Your task to perform on an android device: toggle notification dots Image 0: 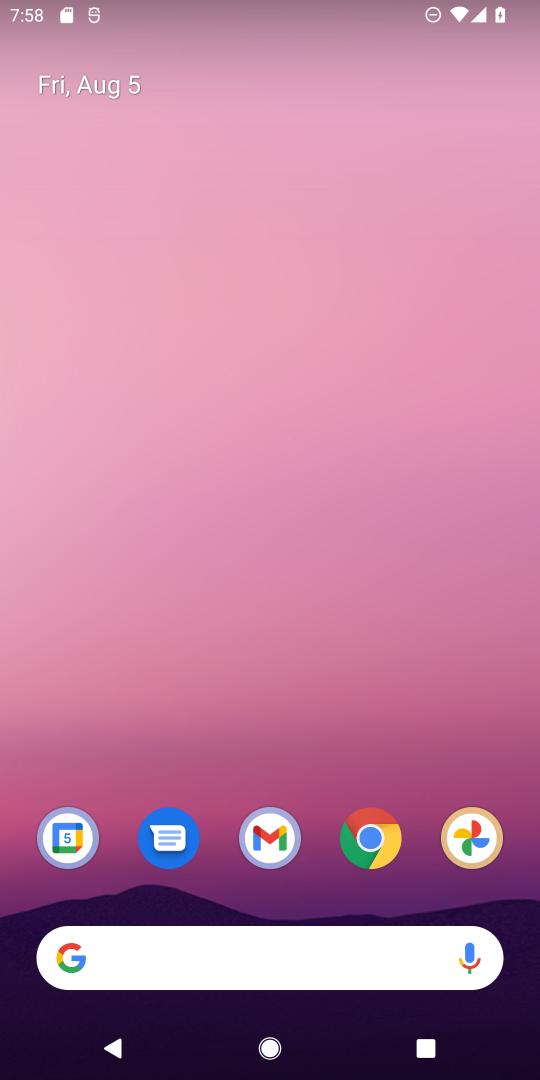
Step 0: drag from (292, 551) to (308, 272)
Your task to perform on an android device: toggle notification dots Image 1: 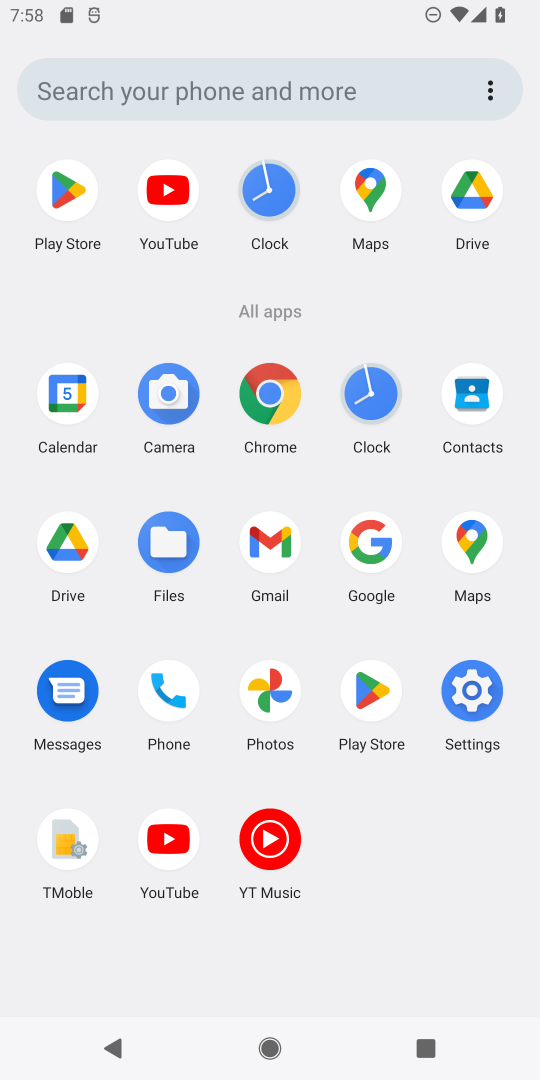
Step 1: click (481, 704)
Your task to perform on an android device: toggle notification dots Image 2: 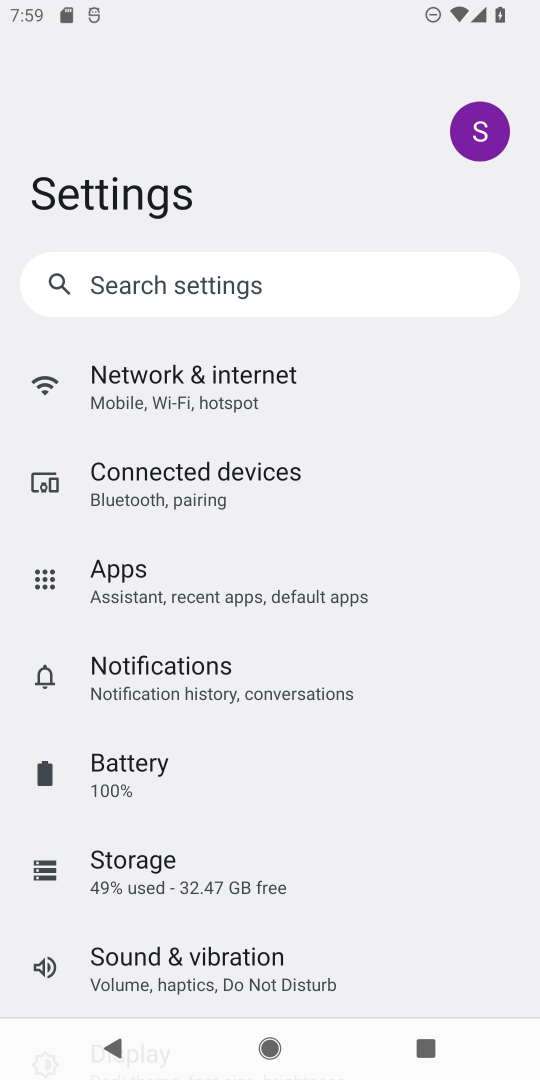
Step 2: click (129, 685)
Your task to perform on an android device: toggle notification dots Image 3: 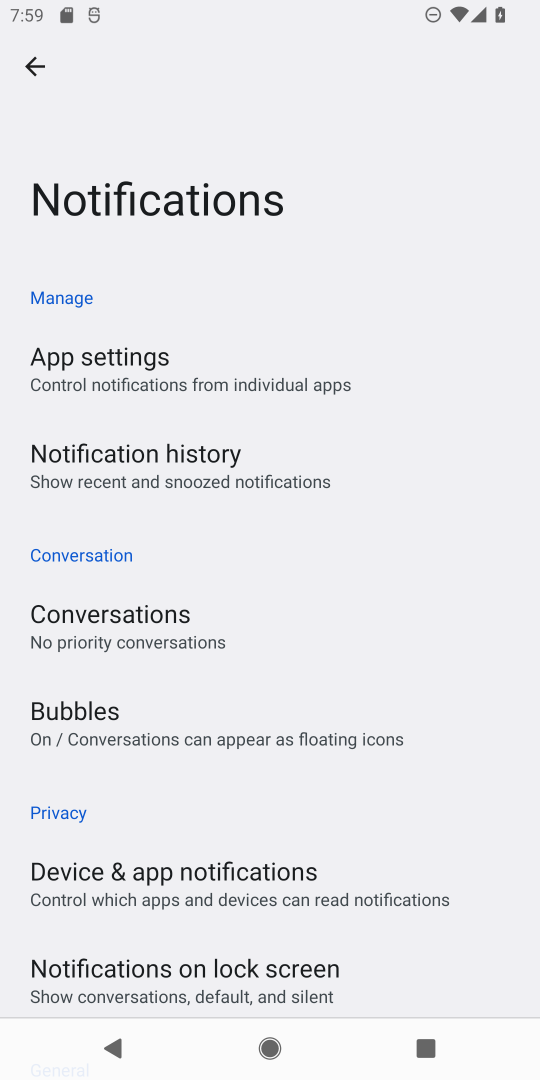
Step 3: click (116, 460)
Your task to perform on an android device: toggle notification dots Image 4: 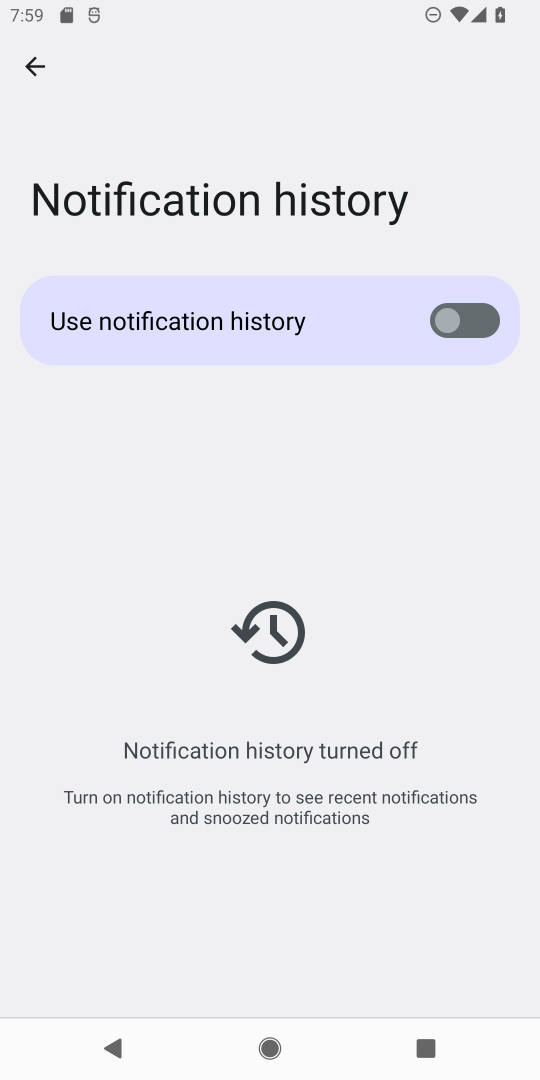
Step 4: click (40, 54)
Your task to perform on an android device: toggle notification dots Image 5: 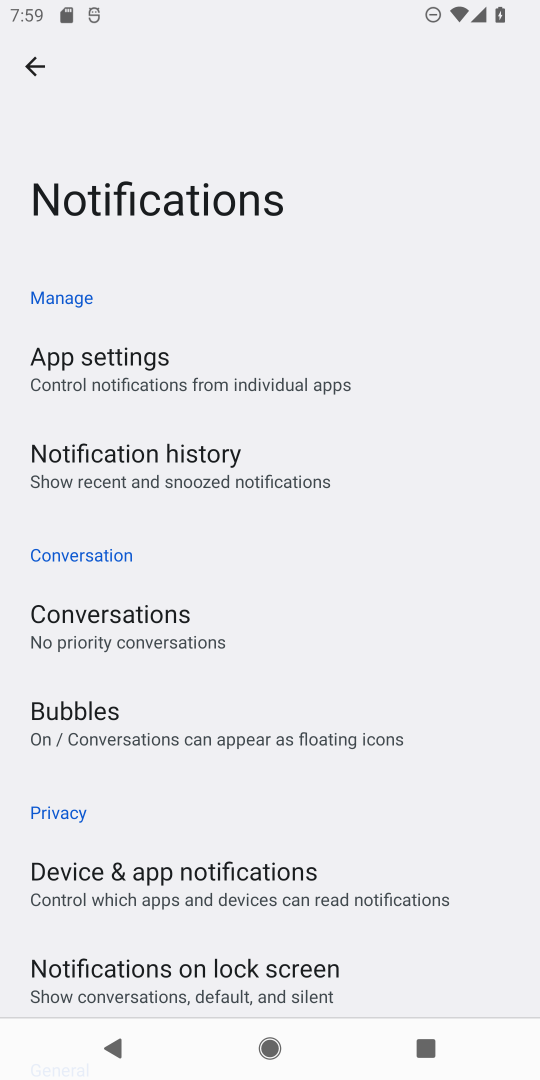
Step 5: task complete